Your task to perform on an android device: open app "Nova Launcher" Image 0: 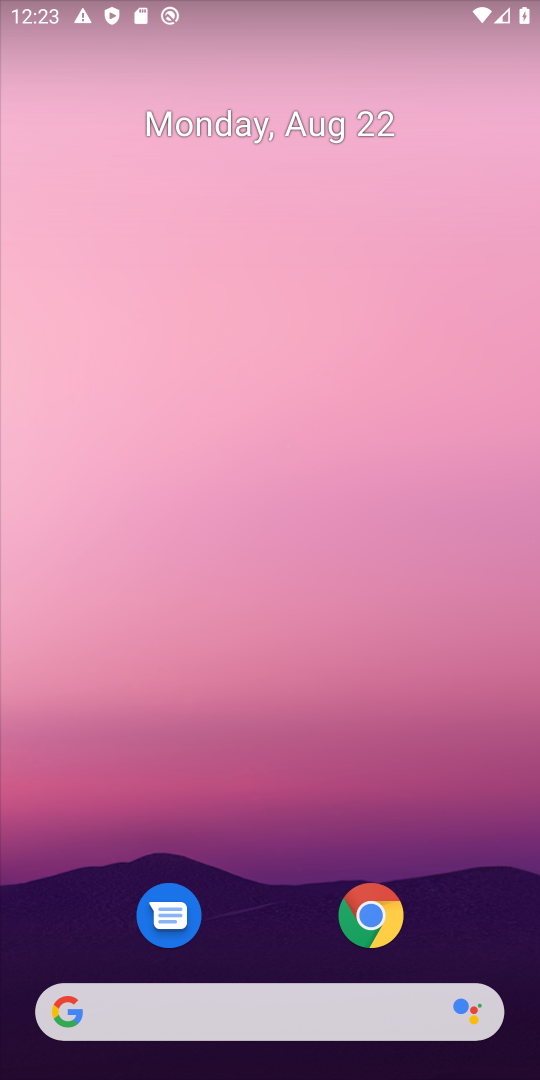
Step 0: drag from (268, 954) to (501, 63)
Your task to perform on an android device: open app "Nova Launcher" Image 1: 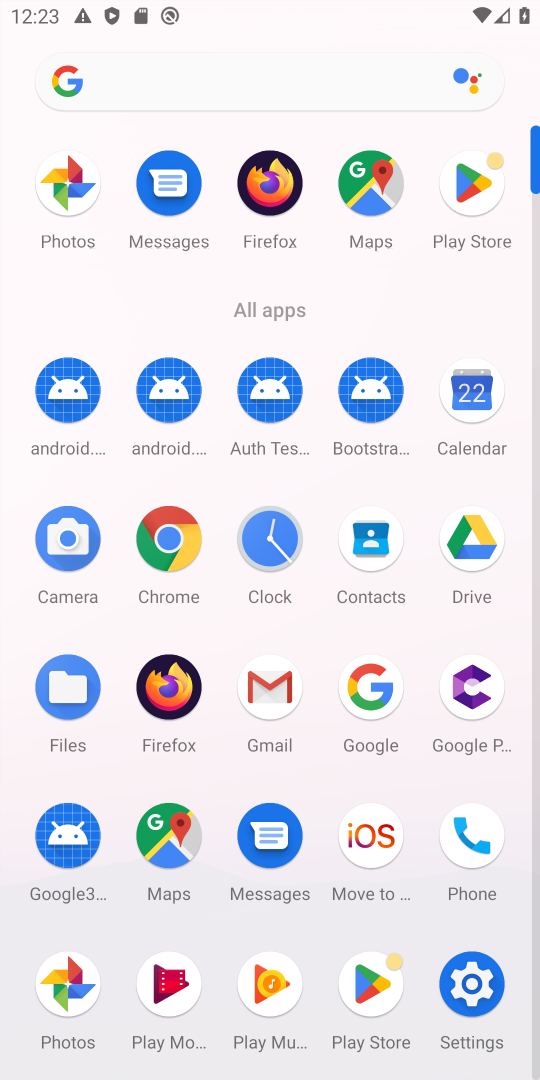
Step 1: click (371, 987)
Your task to perform on an android device: open app "Nova Launcher" Image 2: 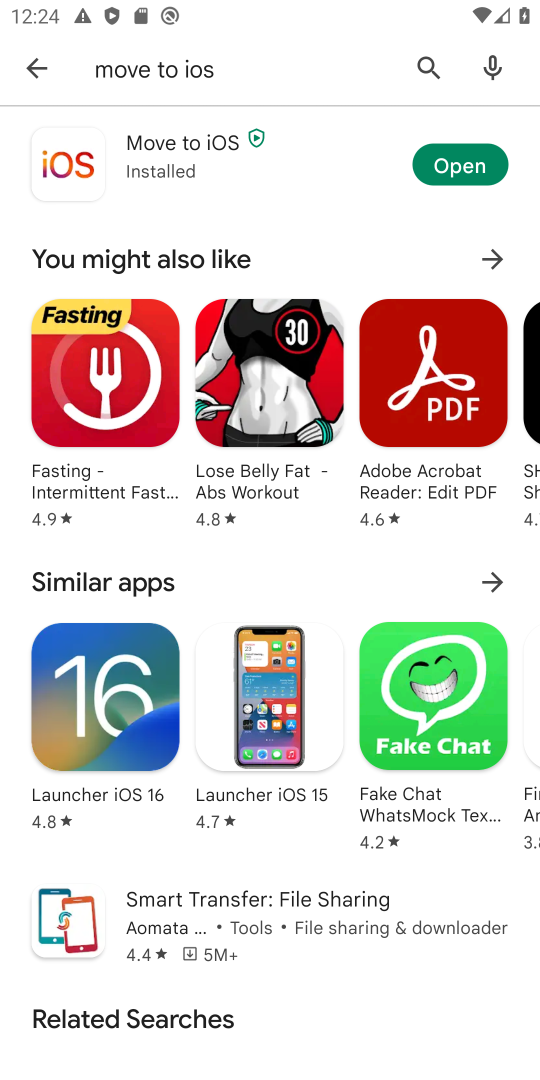
Step 2: click (417, 52)
Your task to perform on an android device: open app "Nova Launcher" Image 3: 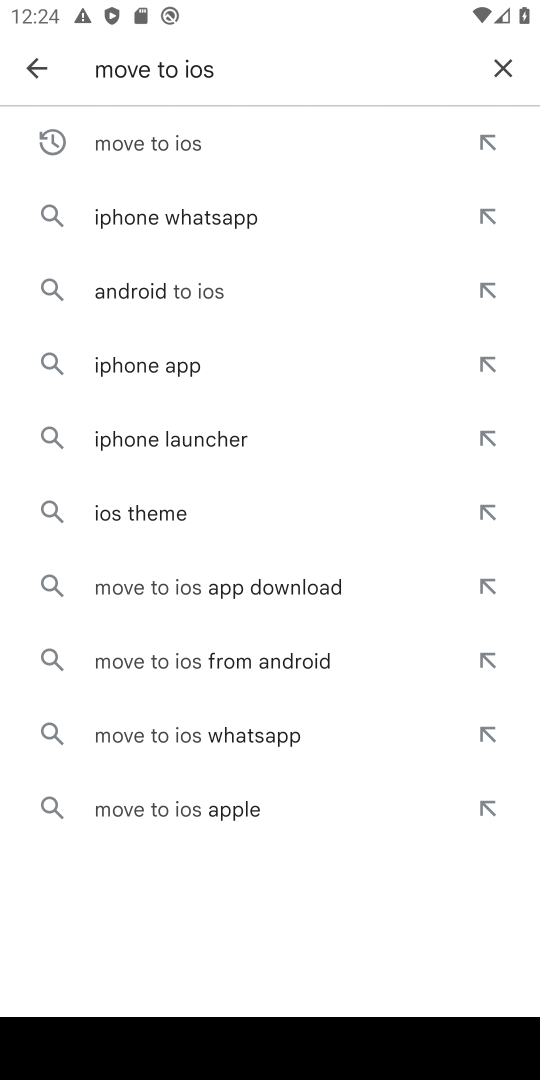
Step 3: click (505, 61)
Your task to perform on an android device: open app "Nova Launcher" Image 4: 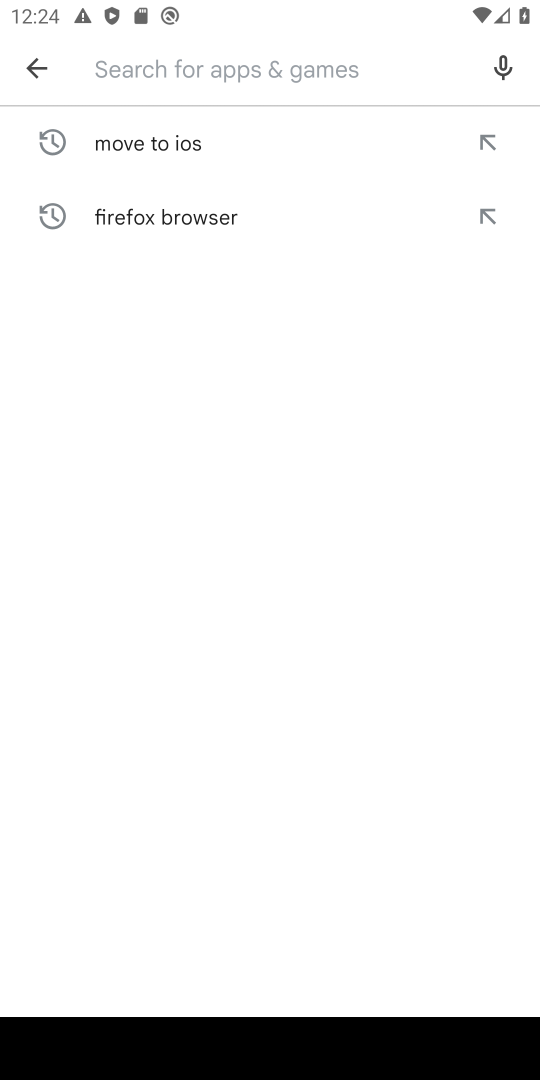
Step 4: type "Nova Launcher"
Your task to perform on an android device: open app "Nova Launcher" Image 5: 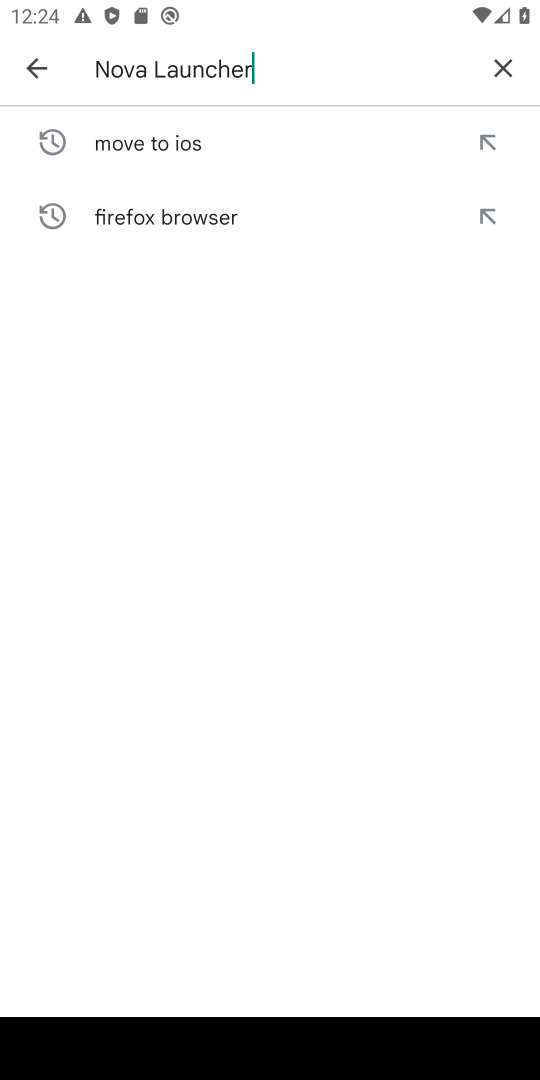
Step 5: type ""
Your task to perform on an android device: open app "Nova Launcher" Image 6: 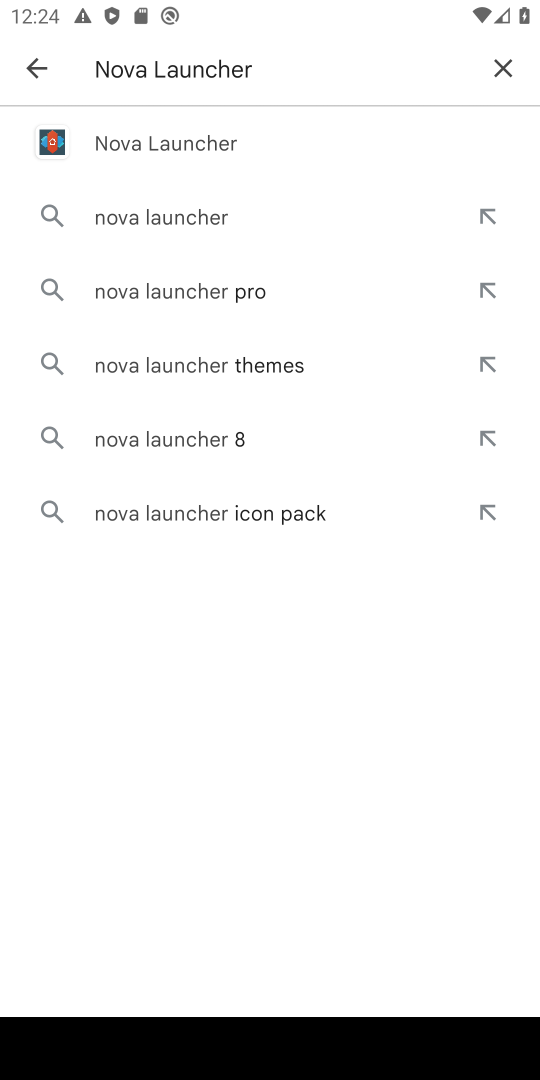
Step 6: click (103, 135)
Your task to perform on an android device: open app "Nova Launcher" Image 7: 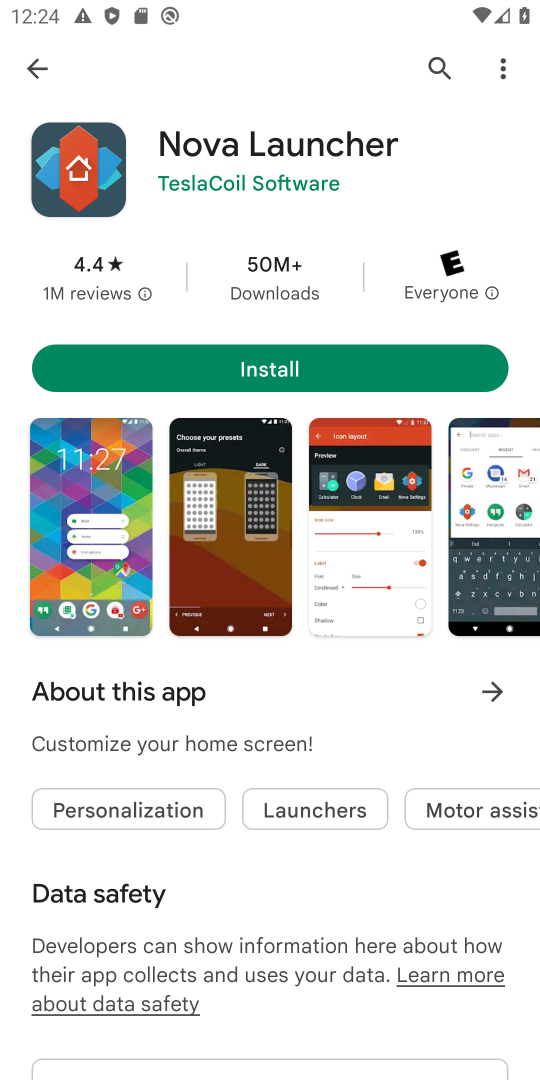
Step 7: task complete